Your task to perform on an android device: Search for flights from Buenos aires to Seoul Image 0: 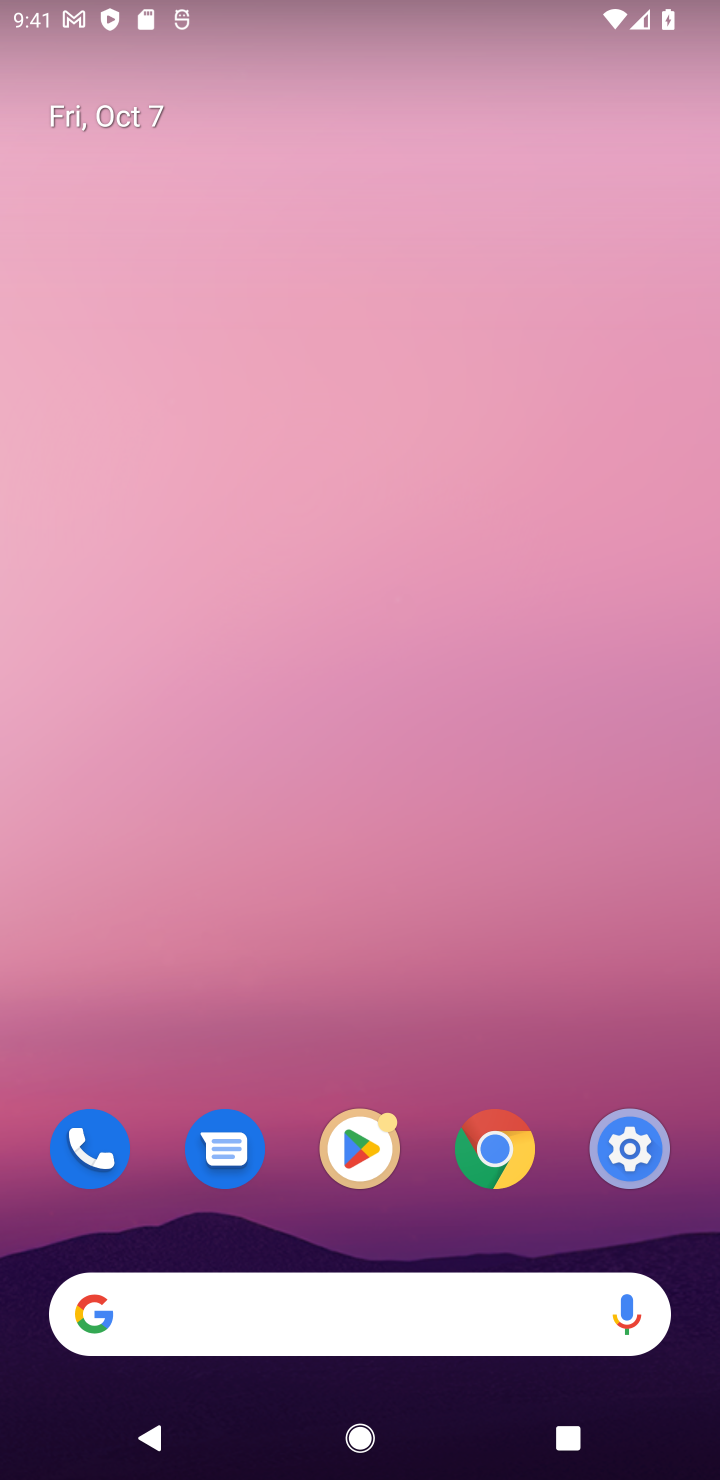
Step 0: click (423, 1338)
Your task to perform on an android device: Search for flights from Buenos aires to Seoul Image 1: 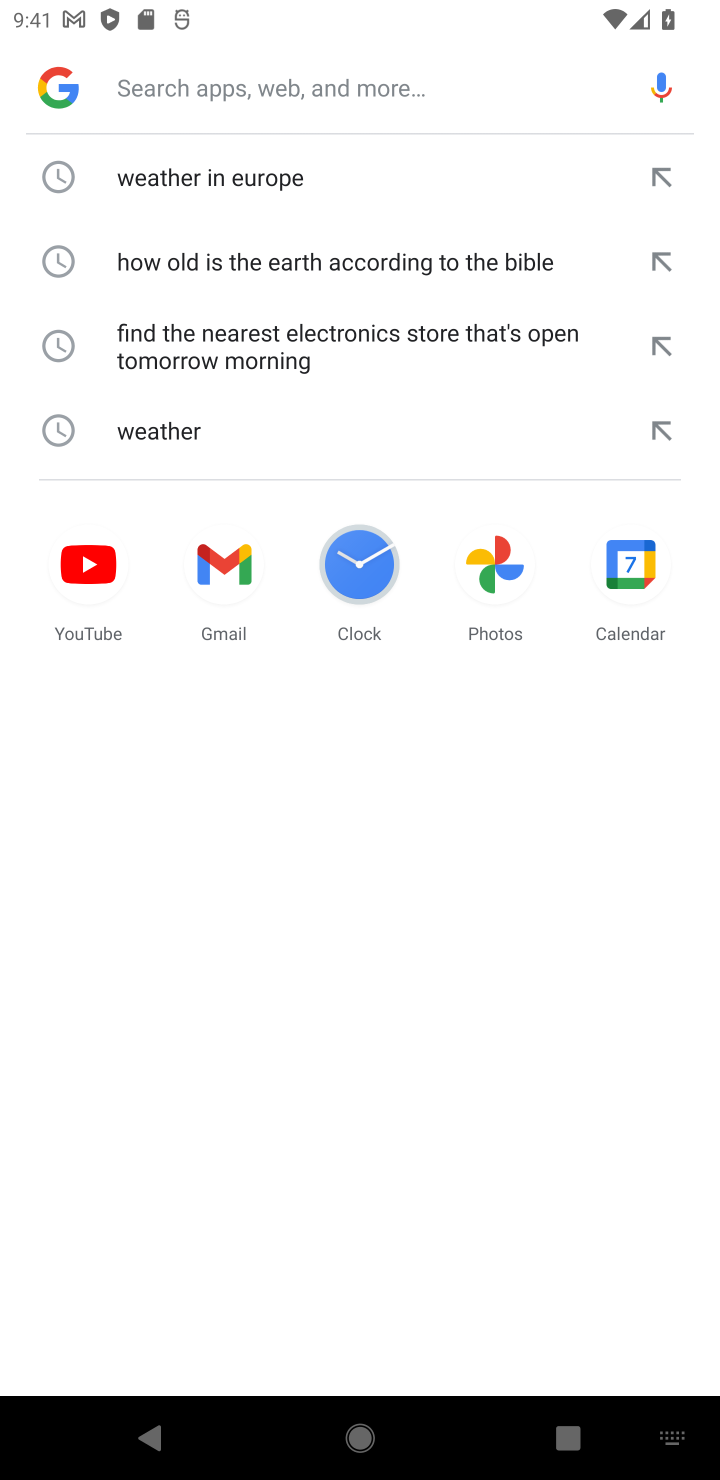
Step 1: type "Search for flights from Buenos aires to Seoul"
Your task to perform on an android device: Search for flights from Buenos aires to Seoul Image 2: 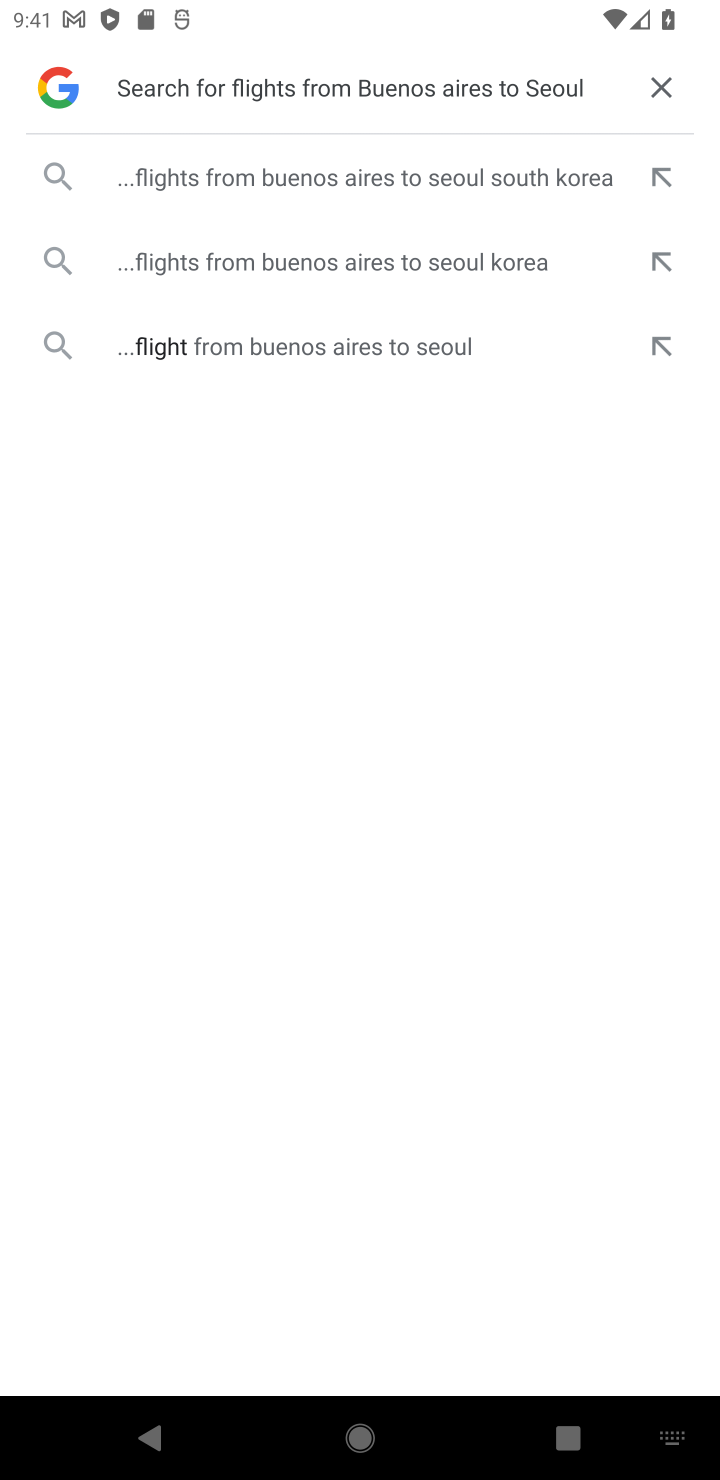
Step 2: click (413, 151)
Your task to perform on an android device: Search for flights from Buenos aires to Seoul Image 3: 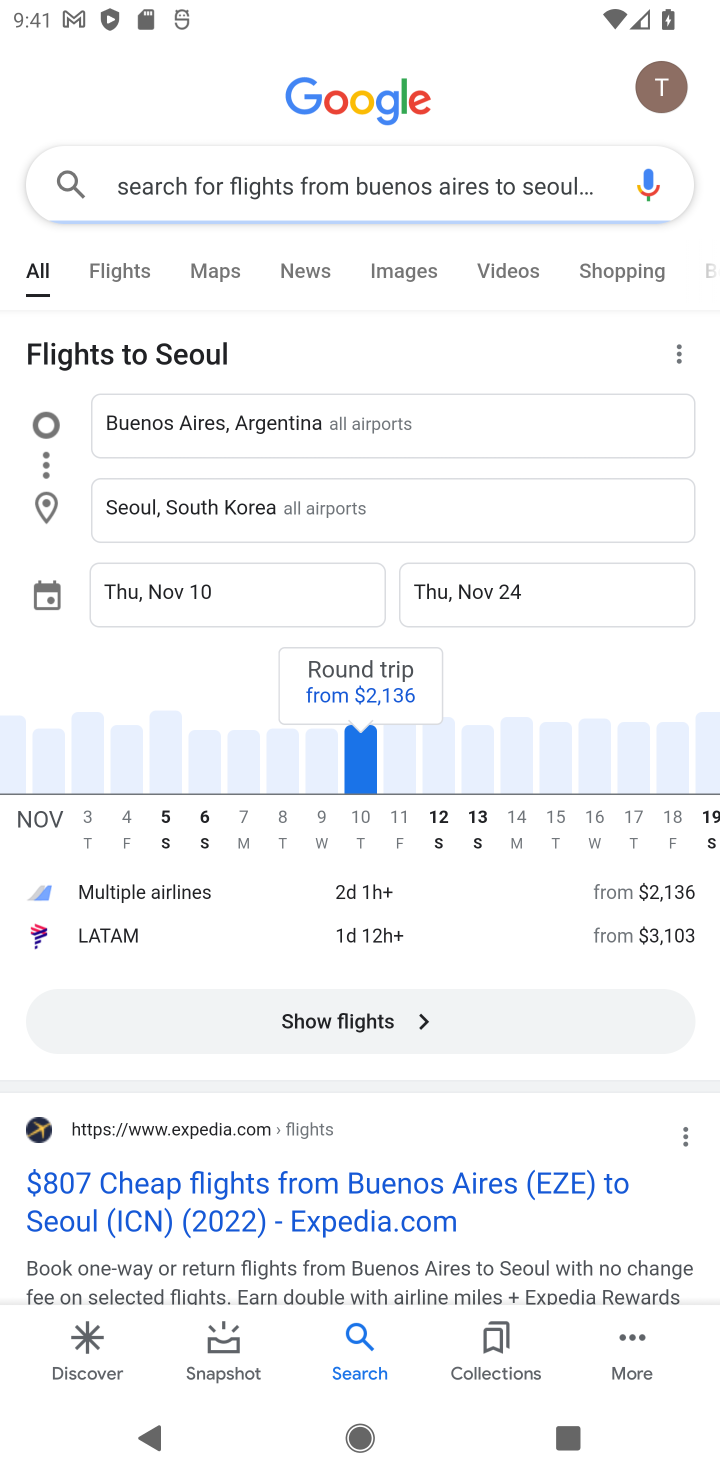
Step 3: task complete